Your task to perform on an android device: toggle airplane mode Image 0: 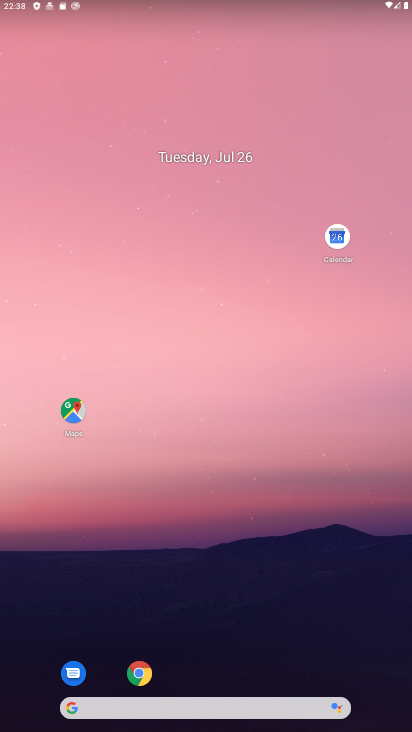
Step 0: drag from (235, 659) to (71, 45)
Your task to perform on an android device: toggle airplane mode Image 1: 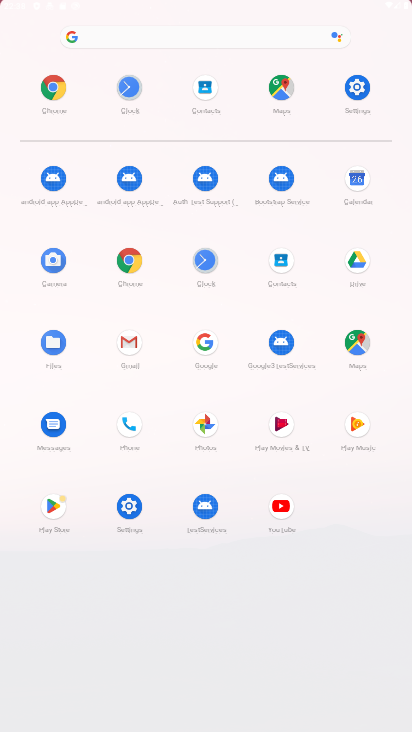
Step 1: drag from (206, 443) to (158, 25)
Your task to perform on an android device: toggle airplane mode Image 2: 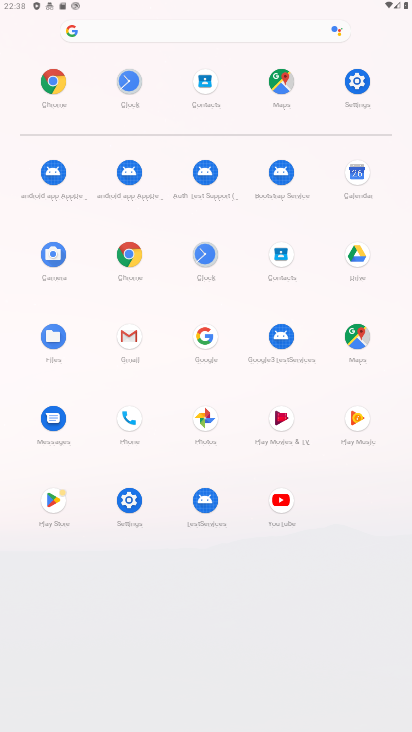
Step 2: click (354, 83)
Your task to perform on an android device: toggle airplane mode Image 3: 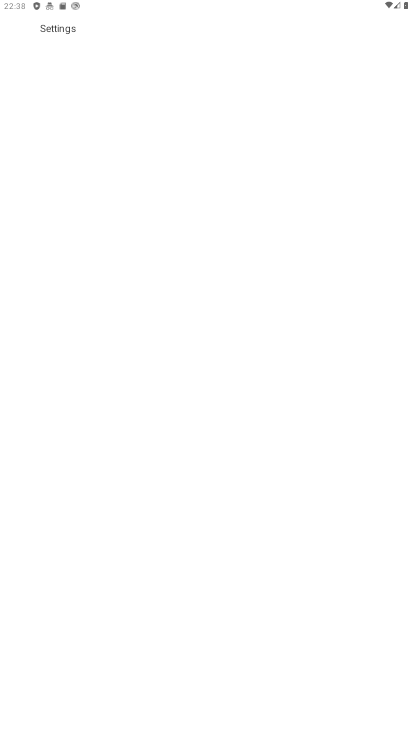
Step 3: click (356, 84)
Your task to perform on an android device: toggle airplane mode Image 4: 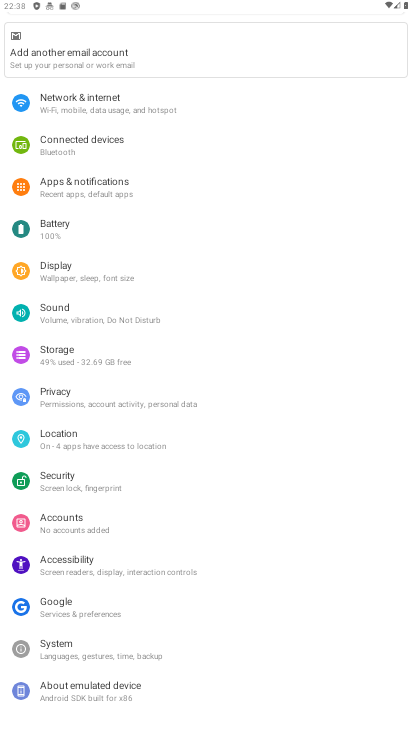
Step 4: click (76, 187)
Your task to perform on an android device: toggle airplane mode Image 5: 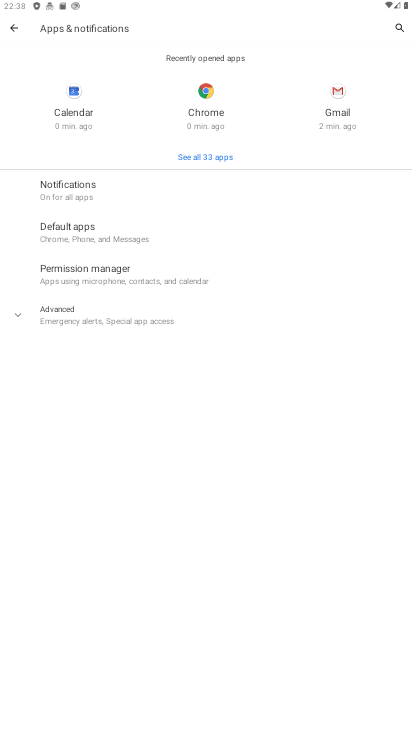
Step 5: click (14, 29)
Your task to perform on an android device: toggle airplane mode Image 6: 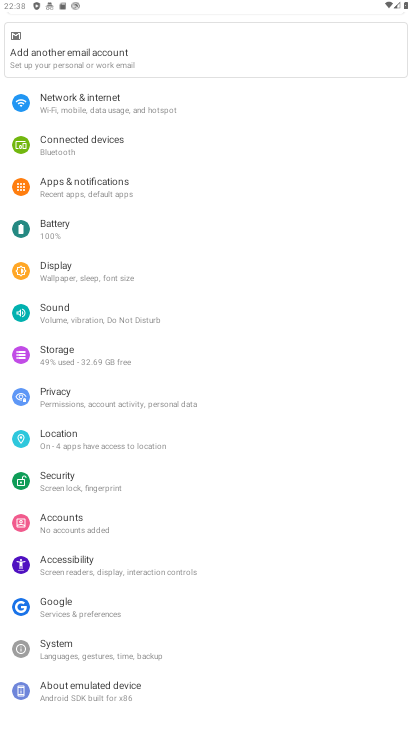
Step 6: click (86, 106)
Your task to perform on an android device: toggle airplane mode Image 7: 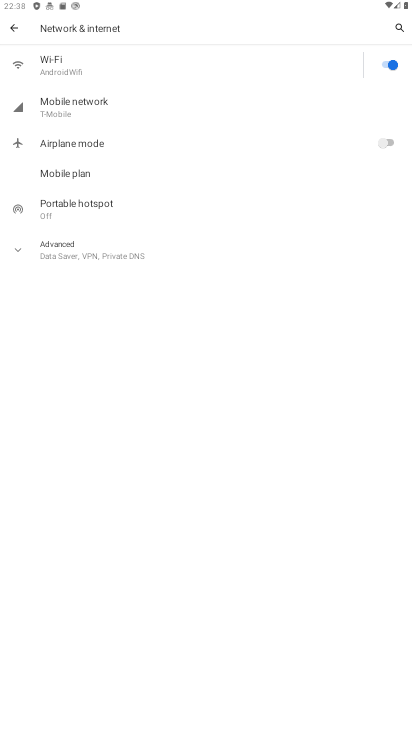
Step 7: click (386, 139)
Your task to perform on an android device: toggle airplane mode Image 8: 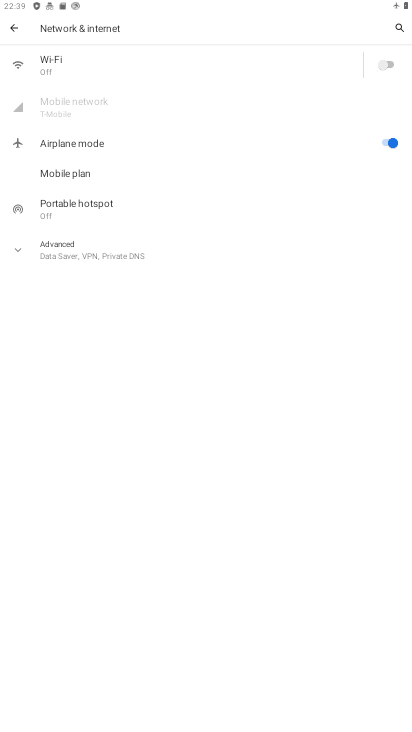
Step 8: task complete